Your task to perform on an android device: turn vacation reply on in the gmail app Image 0: 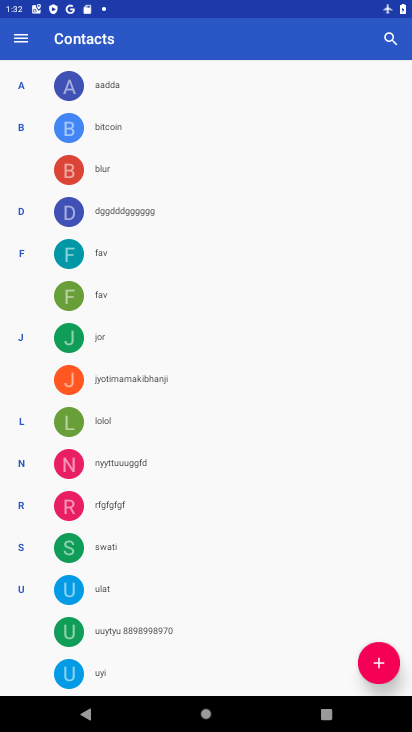
Step 0: press home button
Your task to perform on an android device: turn vacation reply on in the gmail app Image 1: 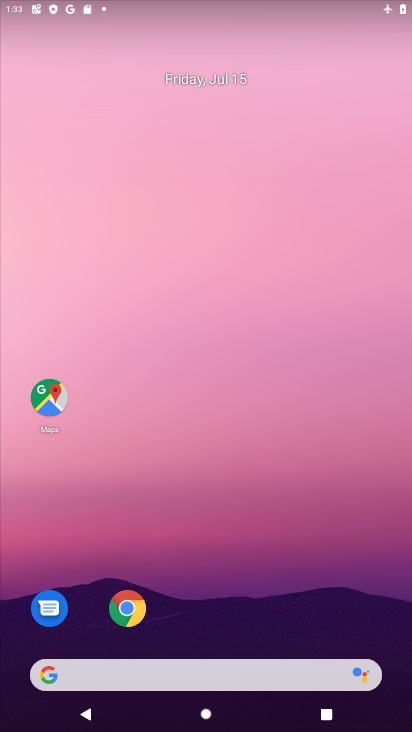
Step 1: drag from (137, 693) to (141, 73)
Your task to perform on an android device: turn vacation reply on in the gmail app Image 2: 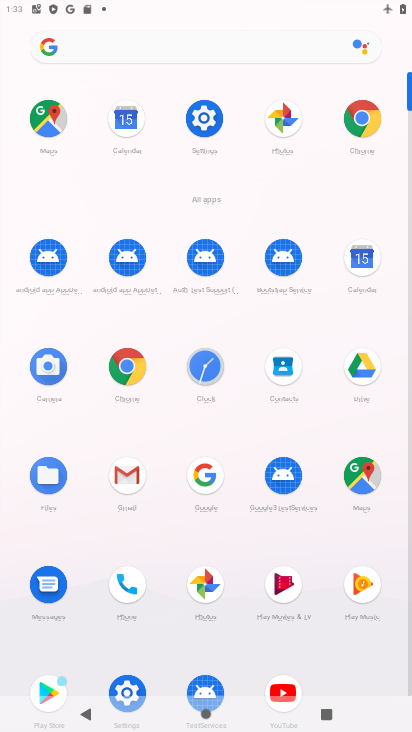
Step 2: click (127, 476)
Your task to perform on an android device: turn vacation reply on in the gmail app Image 3: 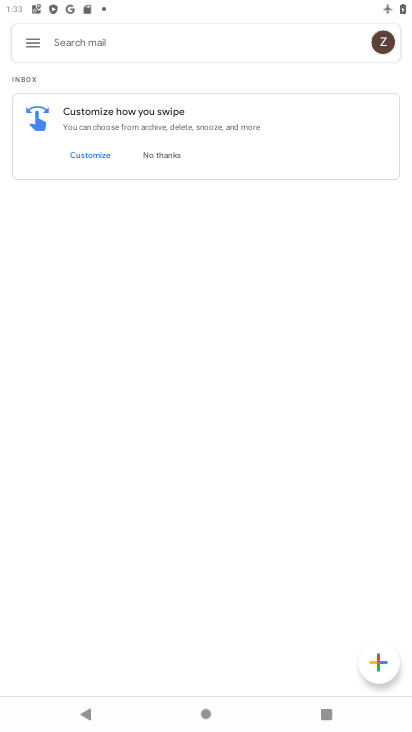
Step 3: click (36, 44)
Your task to perform on an android device: turn vacation reply on in the gmail app Image 4: 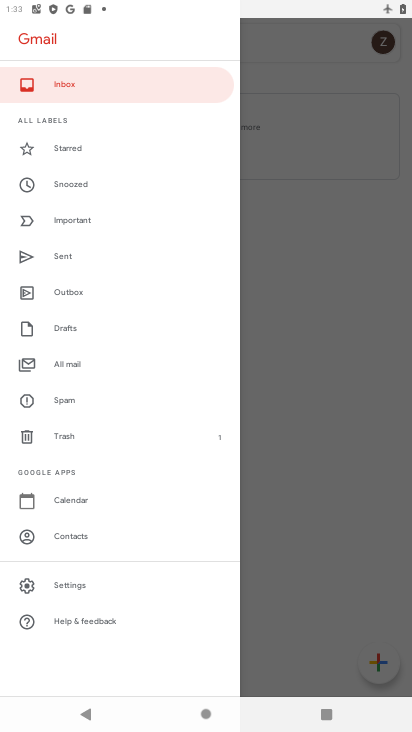
Step 4: click (55, 581)
Your task to perform on an android device: turn vacation reply on in the gmail app Image 5: 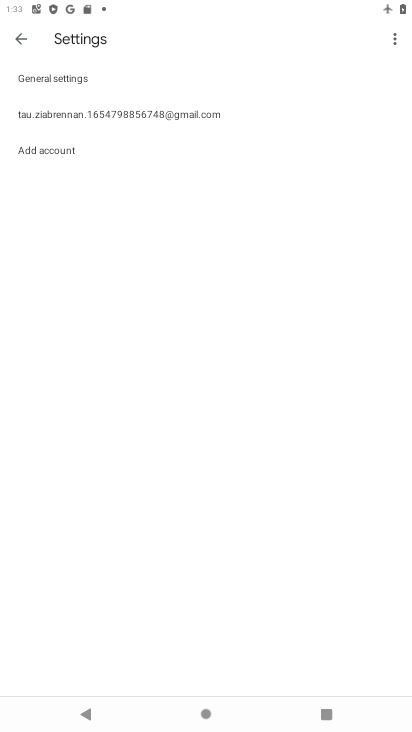
Step 5: click (257, 112)
Your task to perform on an android device: turn vacation reply on in the gmail app Image 6: 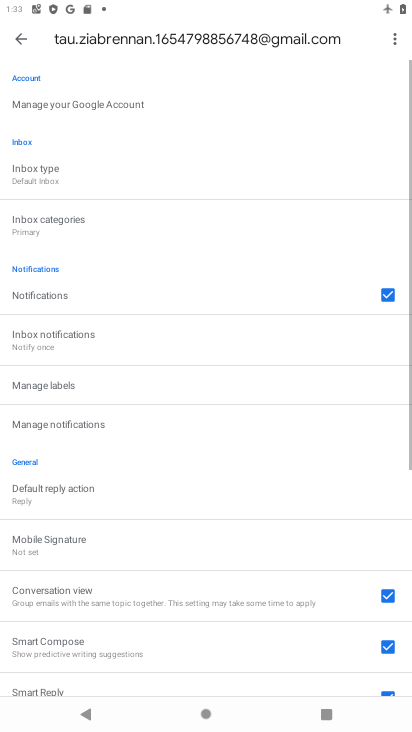
Step 6: drag from (235, 616) to (200, 26)
Your task to perform on an android device: turn vacation reply on in the gmail app Image 7: 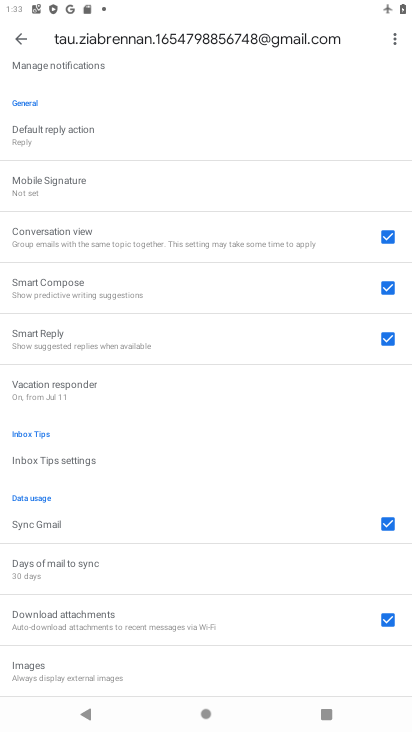
Step 7: click (156, 398)
Your task to perform on an android device: turn vacation reply on in the gmail app Image 8: 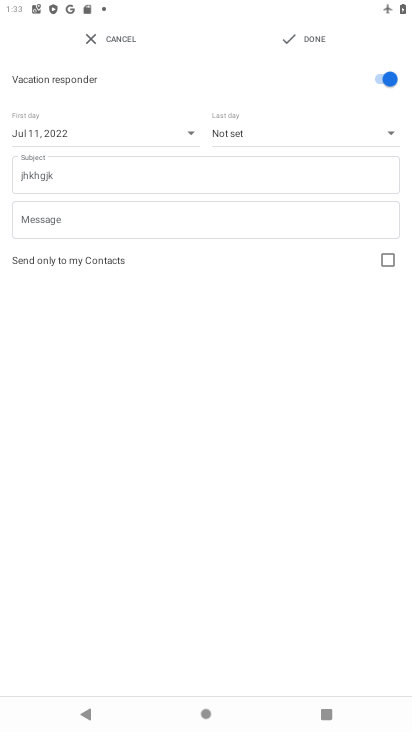
Step 8: click (298, 35)
Your task to perform on an android device: turn vacation reply on in the gmail app Image 9: 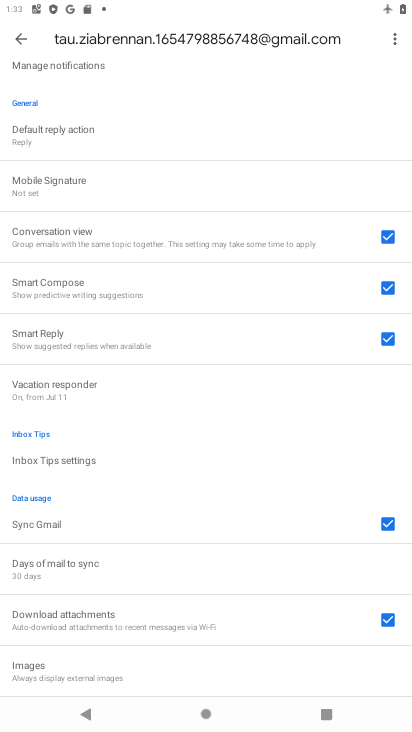
Step 9: task complete